Your task to perform on an android device: turn vacation reply on in the gmail app Image 0: 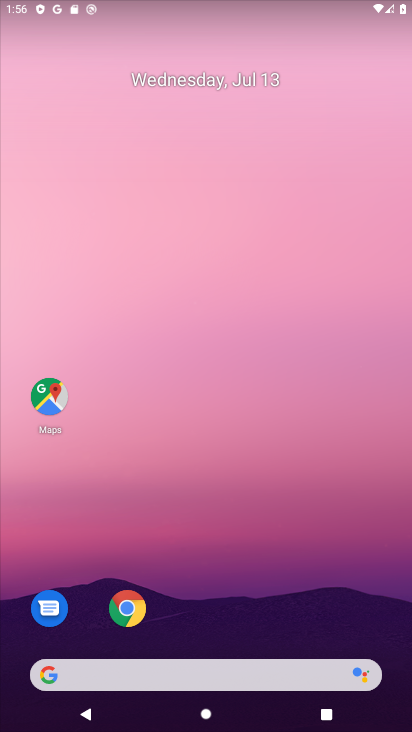
Step 0: drag from (213, 651) to (410, 22)
Your task to perform on an android device: turn vacation reply on in the gmail app Image 1: 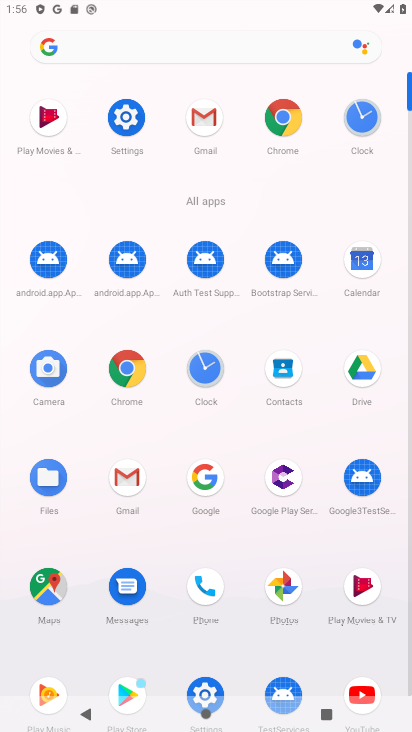
Step 1: click (212, 126)
Your task to perform on an android device: turn vacation reply on in the gmail app Image 2: 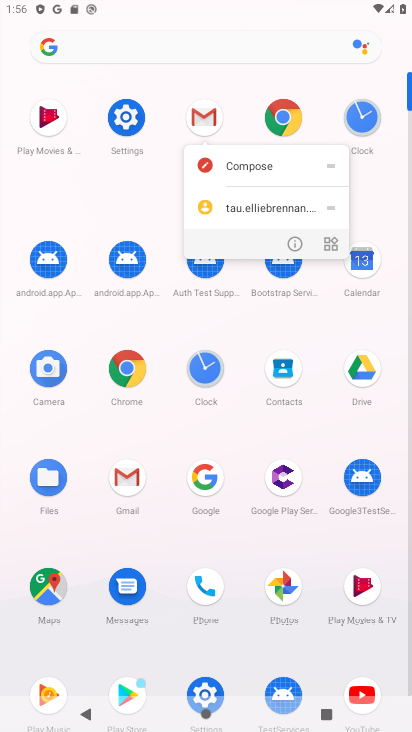
Step 2: click (203, 119)
Your task to perform on an android device: turn vacation reply on in the gmail app Image 3: 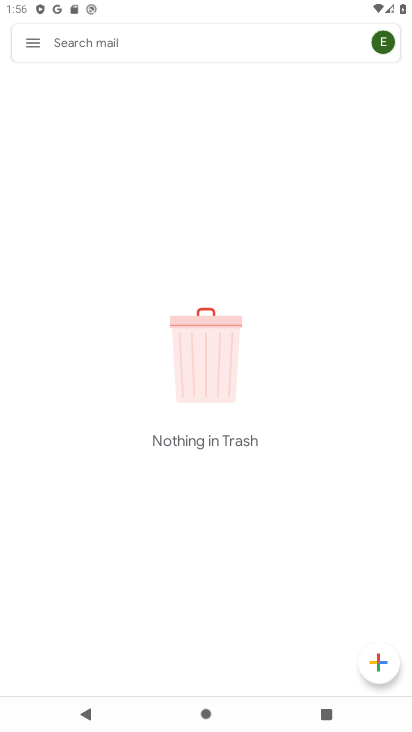
Step 3: click (44, 42)
Your task to perform on an android device: turn vacation reply on in the gmail app Image 4: 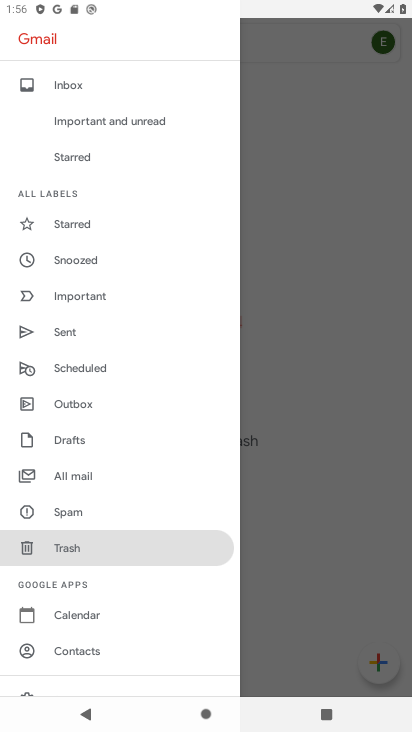
Step 4: drag from (93, 664) to (150, 245)
Your task to perform on an android device: turn vacation reply on in the gmail app Image 5: 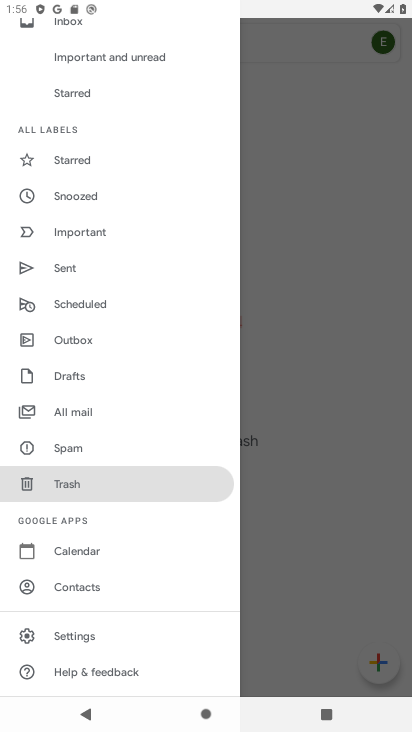
Step 5: click (112, 639)
Your task to perform on an android device: turn vacation reply on in the gmail app Image 6: 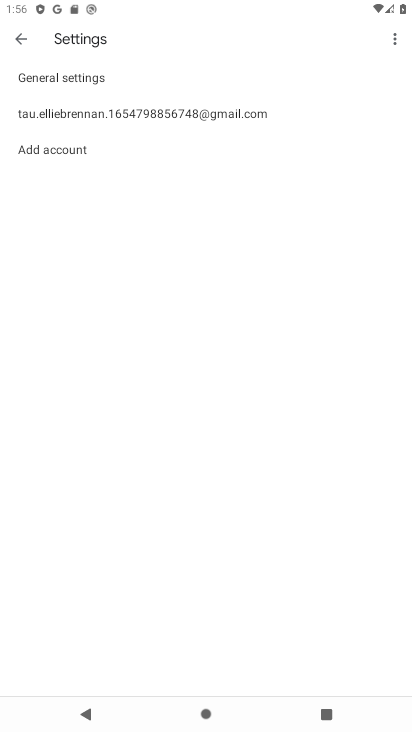
Step 6: click (301, 121)
Your task to perform on an android device: turn vacation reply on in the gmail app Image 7: 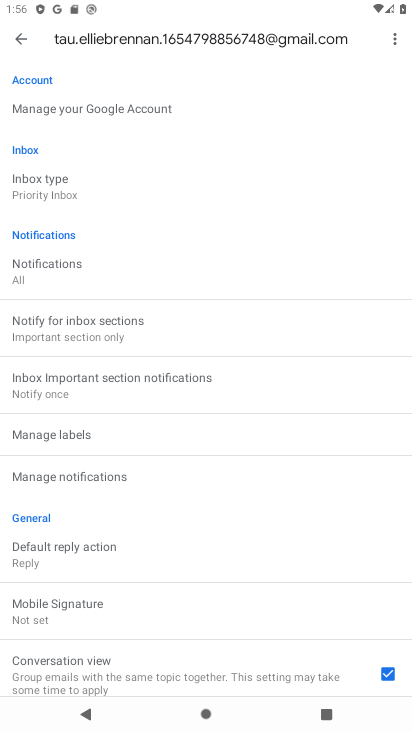
Step 7: drag from (190, 634) to (204, 76)
Your task to perform on an android device: turn vacation reply on in the gmail app Image 8: 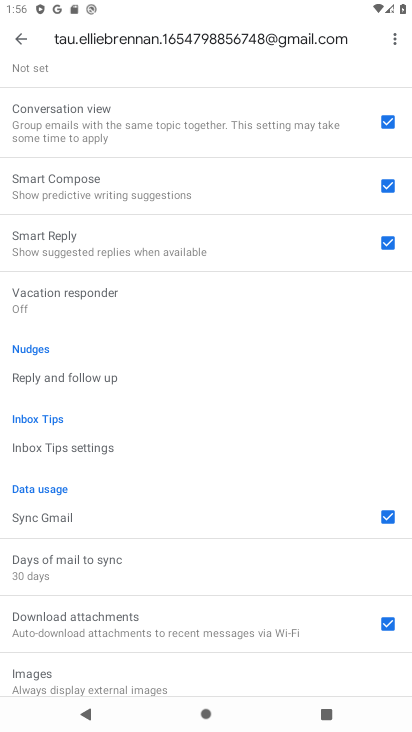
Step 8: drag from (244, 510) to (258, 166)
Your task to perform on an android device: turn vacation reply on in the gmail app Image 9: 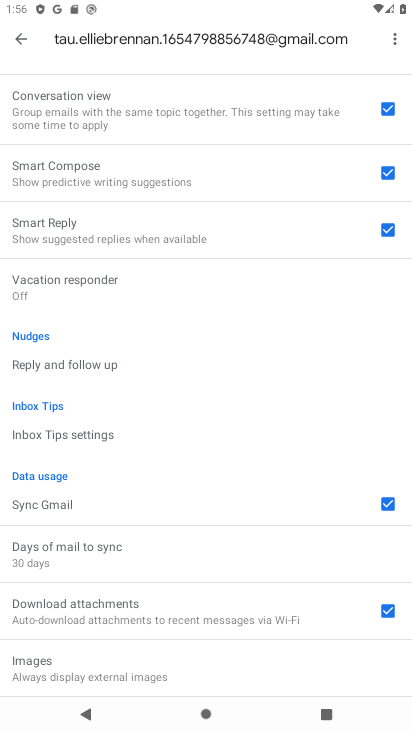
Step 9: click (184, 290)
Your task to perform on an android device: turn vacation reply on in the gmail app Image 10: 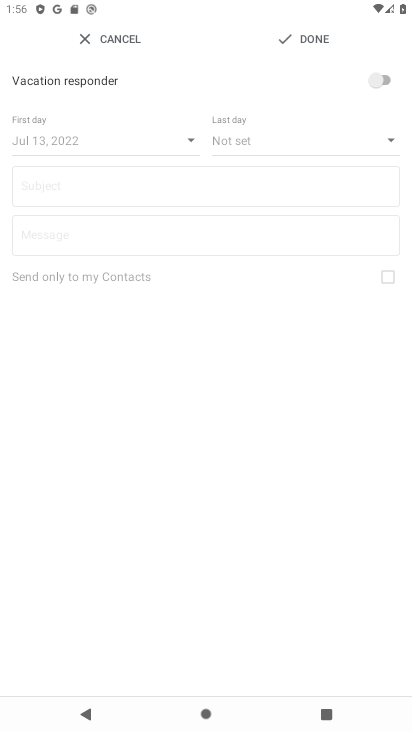
Step 10: click (386, 83)
Your task to perform on an android device: turn vacation reply on in the gmail app Image 11: 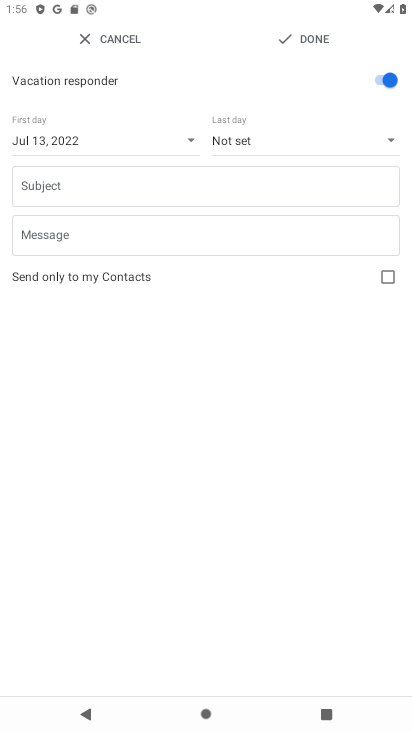
Step 11: click (338, 33)
Your task to perform on an android device: turn vacation reply on in the gmail app Image 12: 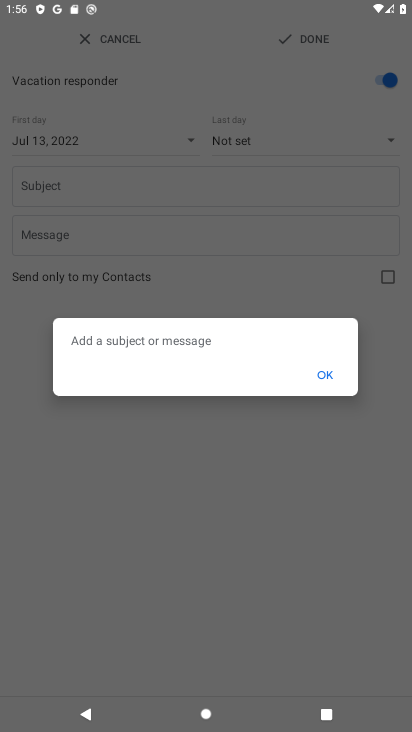
Step 12: click (322, 376)
Your task to perform on an android device: turn vacation reply on in the gmail app Image 13: 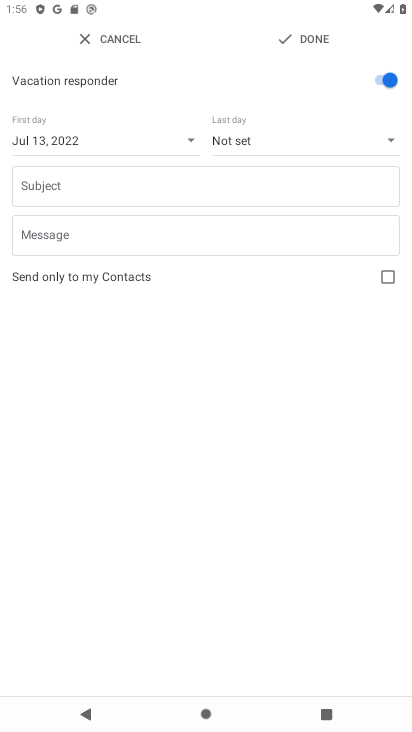
Step 13: click (322, 46)
Your task to perform on an android device: turn vacation reply on in the gmail app Image 14: 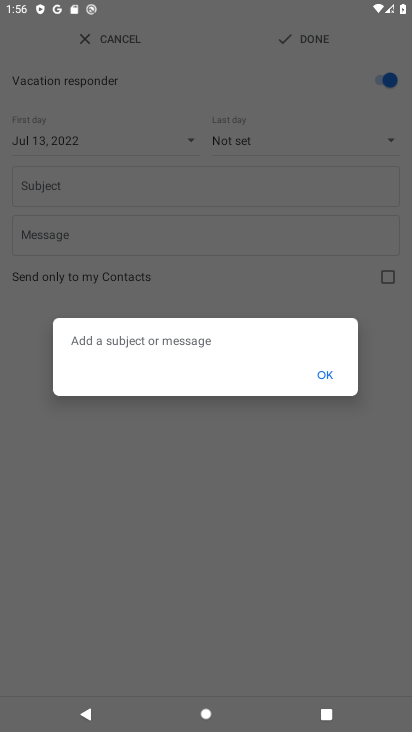
Step 14: click (327, 378)
Your task to perform on an android device: turn vacation reply on in the gmail app Image 15: 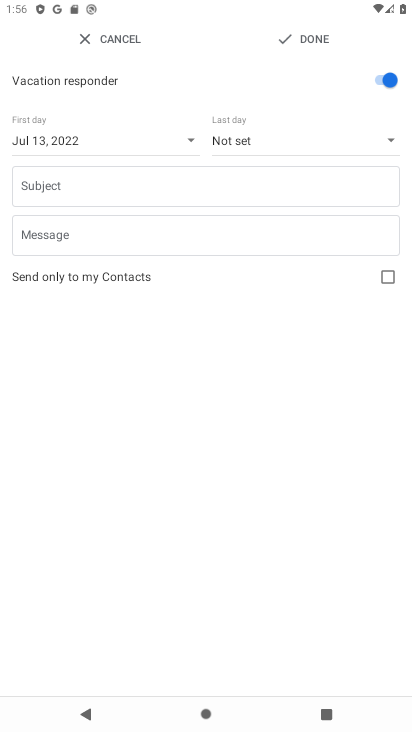
Step 15: task complete